Your task to perform on an android device: check google app version Image 0: 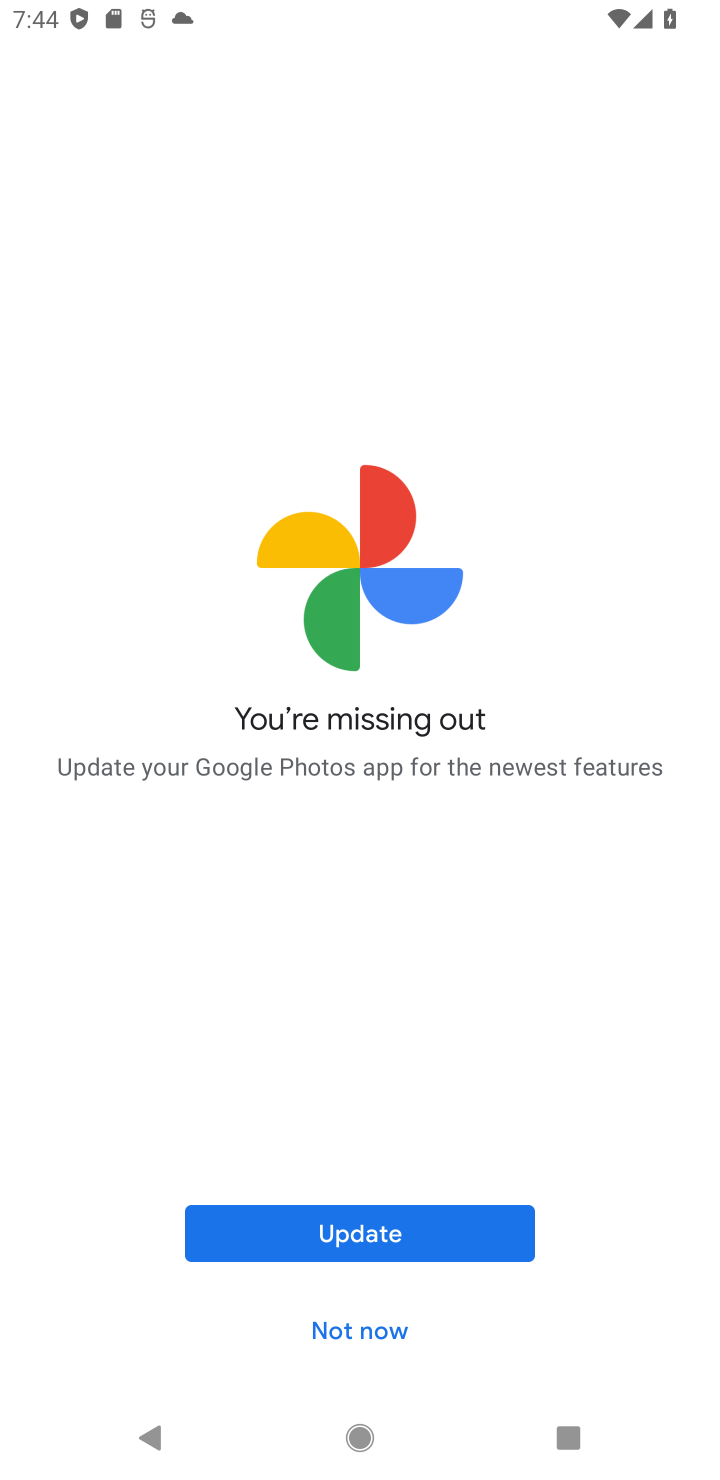
Step 0: press home button
Your task to perform on an android device: check google app version Image 1: 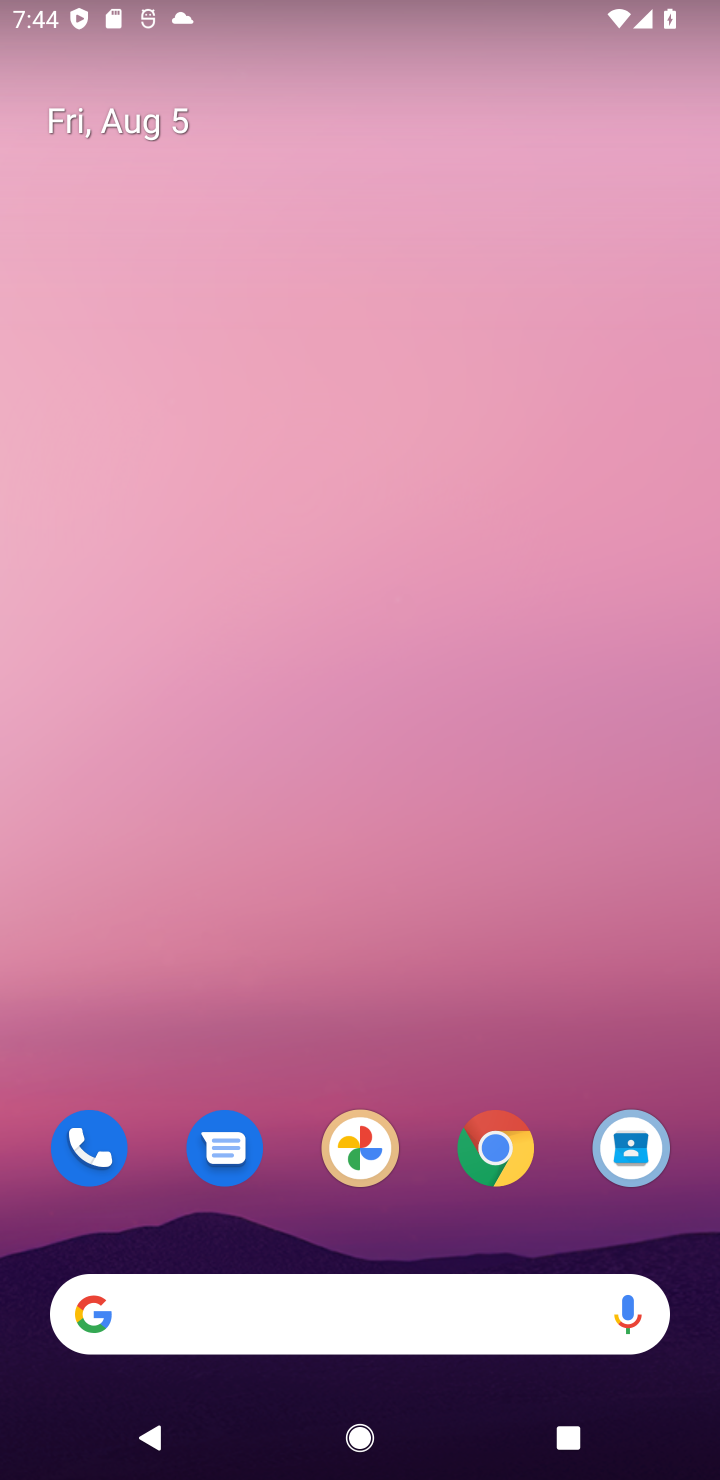
Step 1: click (511, 1174)
Your task to perform on an android device: check google app version Image 2: 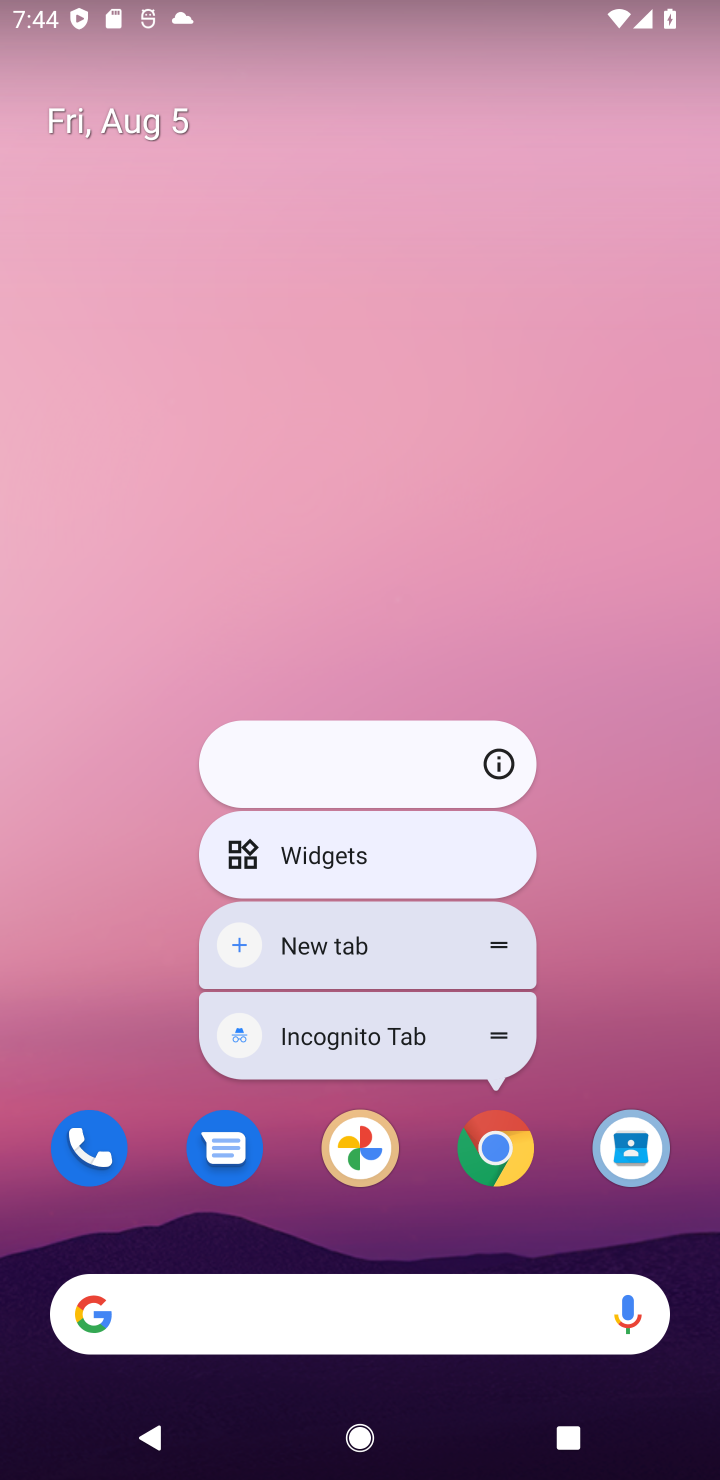
Step 2: click (507, 749)
Your task to perform on an android device: check google app version Image 3: 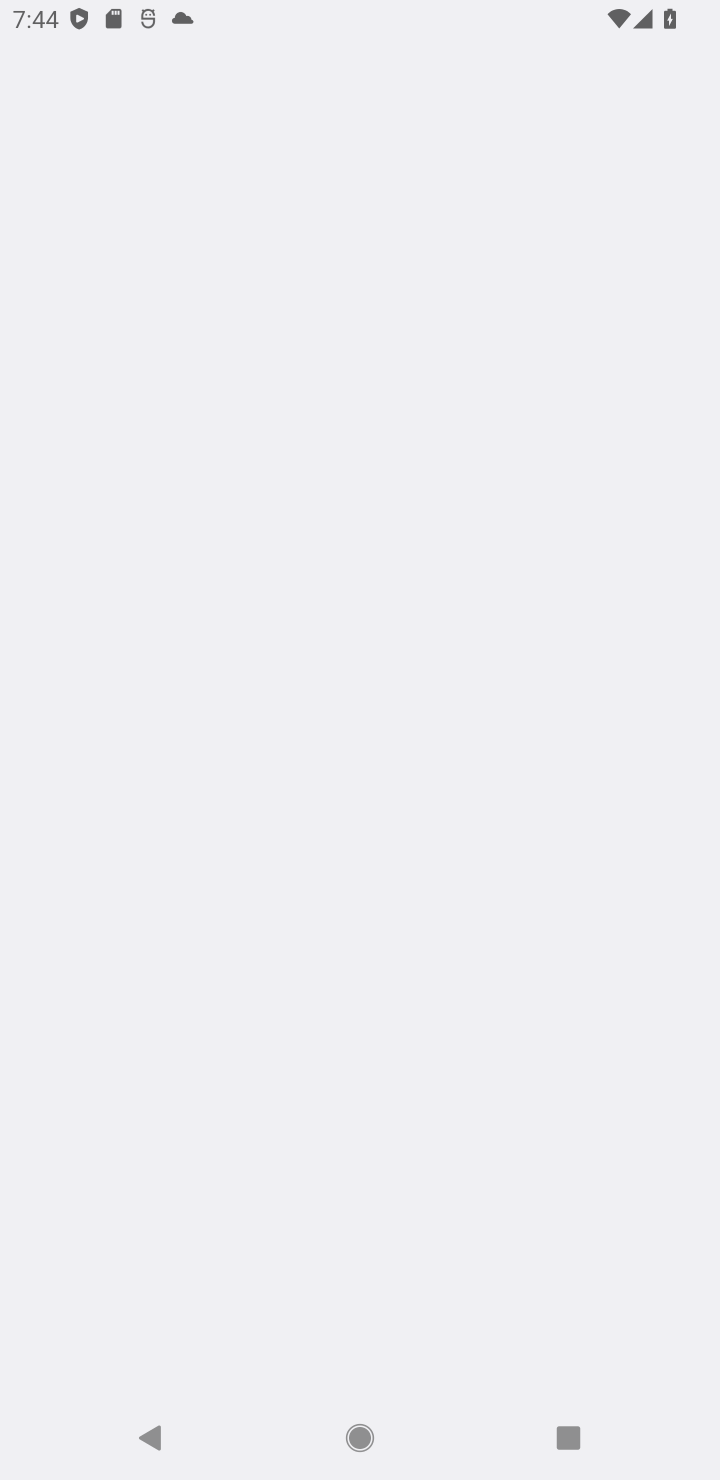
Step 3: task complete